Your task to perform on an android device: Add usb-b to the cart on ebay.com, then select checkout. Image 0: 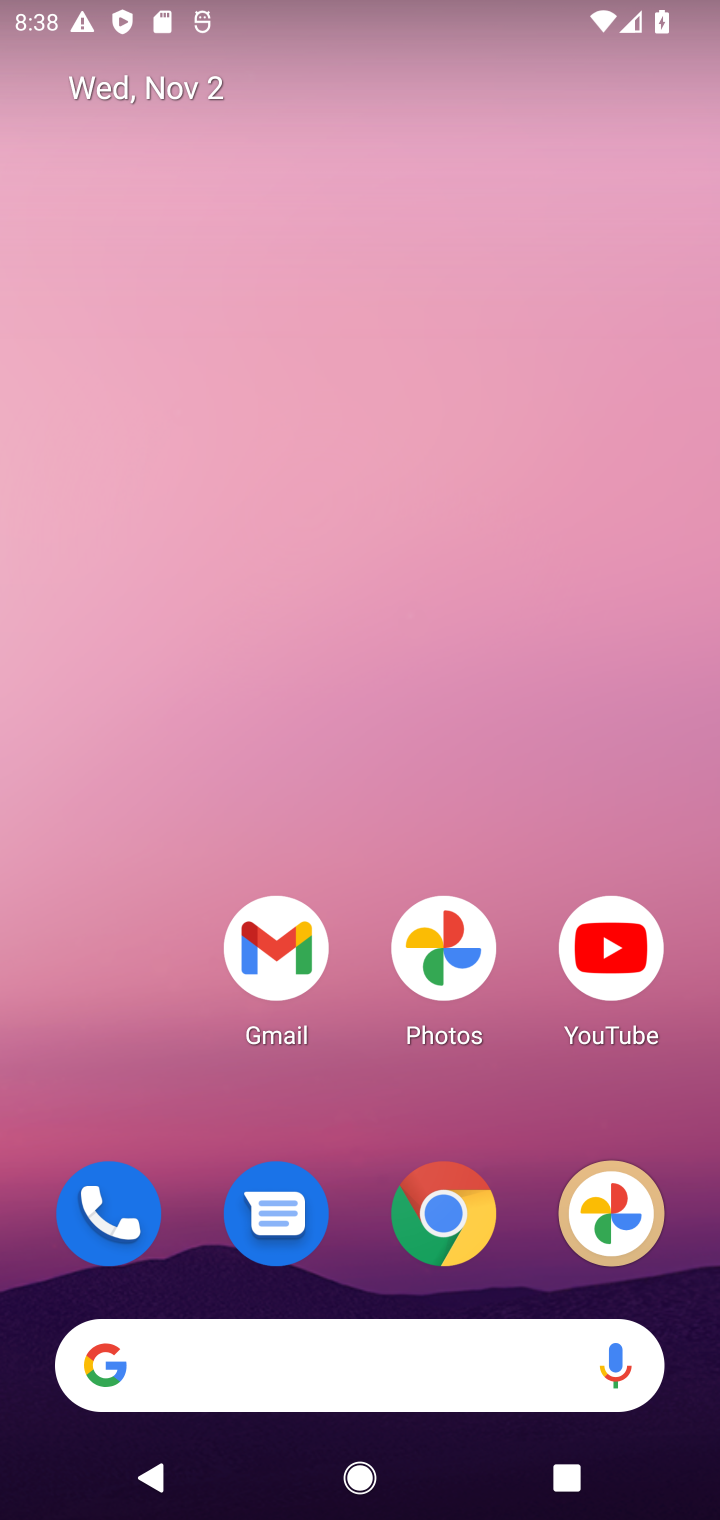
Step 0: click (444, 1228)
Your task to perform on an android device: Add usb-b to the cart on ebay.com, then select checkout. Image 1: 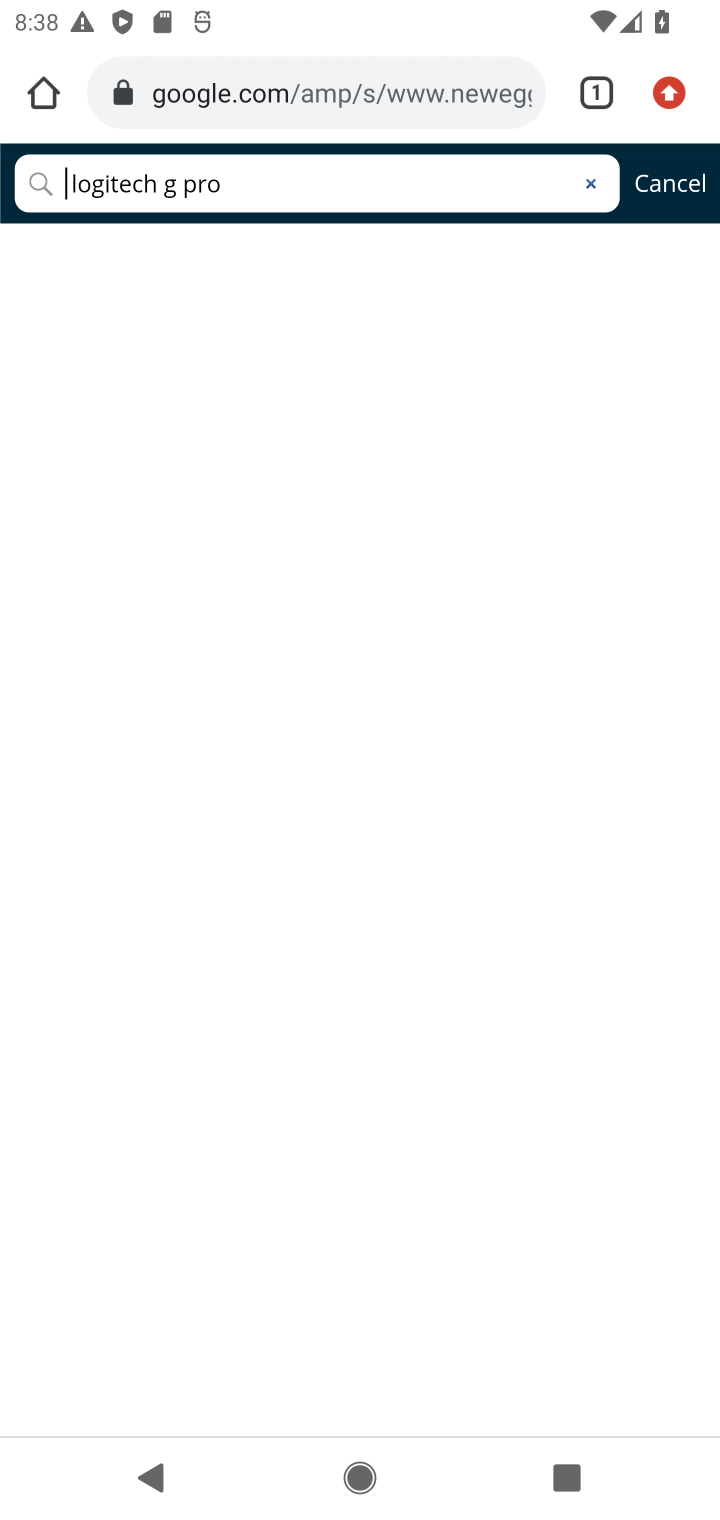
Step 1: click (361, 124)
Your task to perform on an android device: Add usb-b to the cart on ebay.com, then select checkout. Image 2: 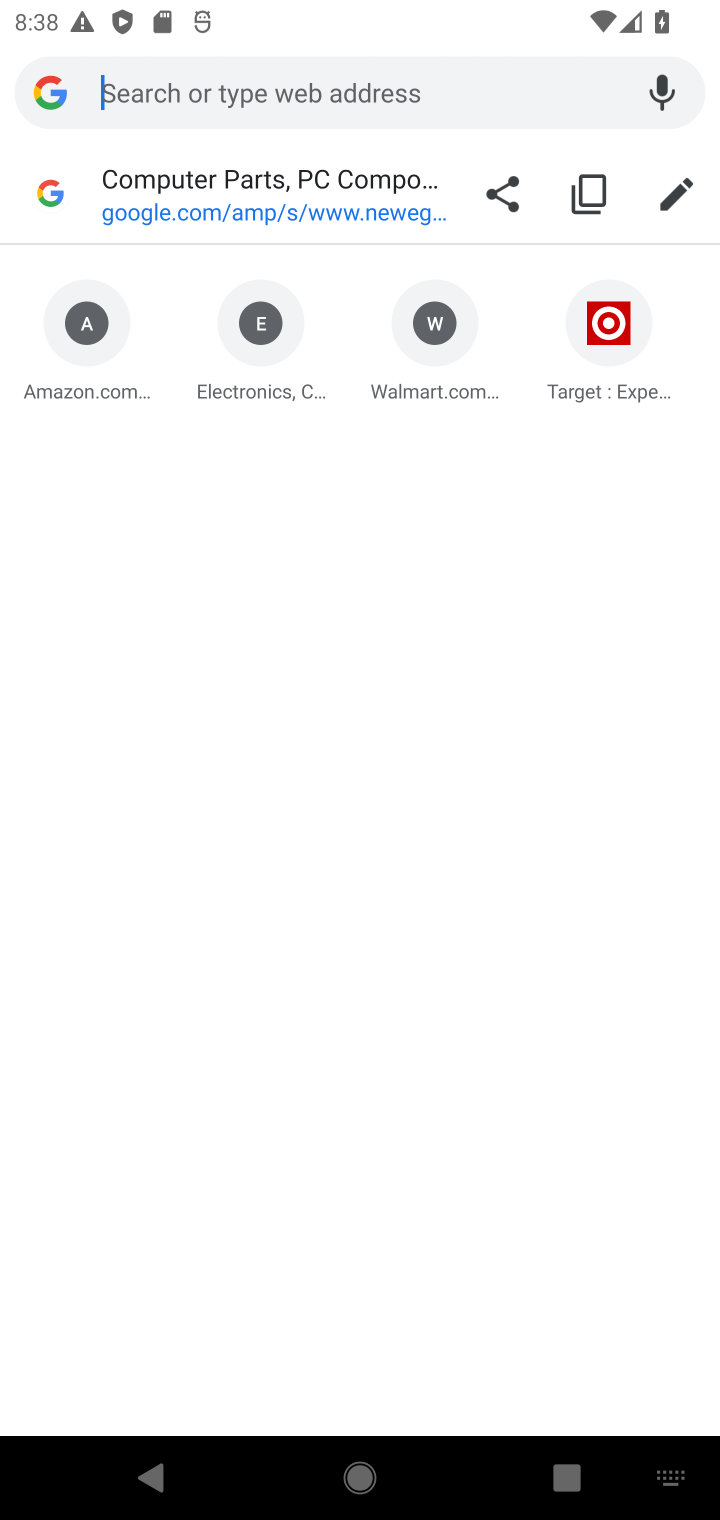
Step 2: type "ebay.com"
Your task to perform on an android device: Add usb-b to the cart on ebay.com, then select checkout. Image 3: 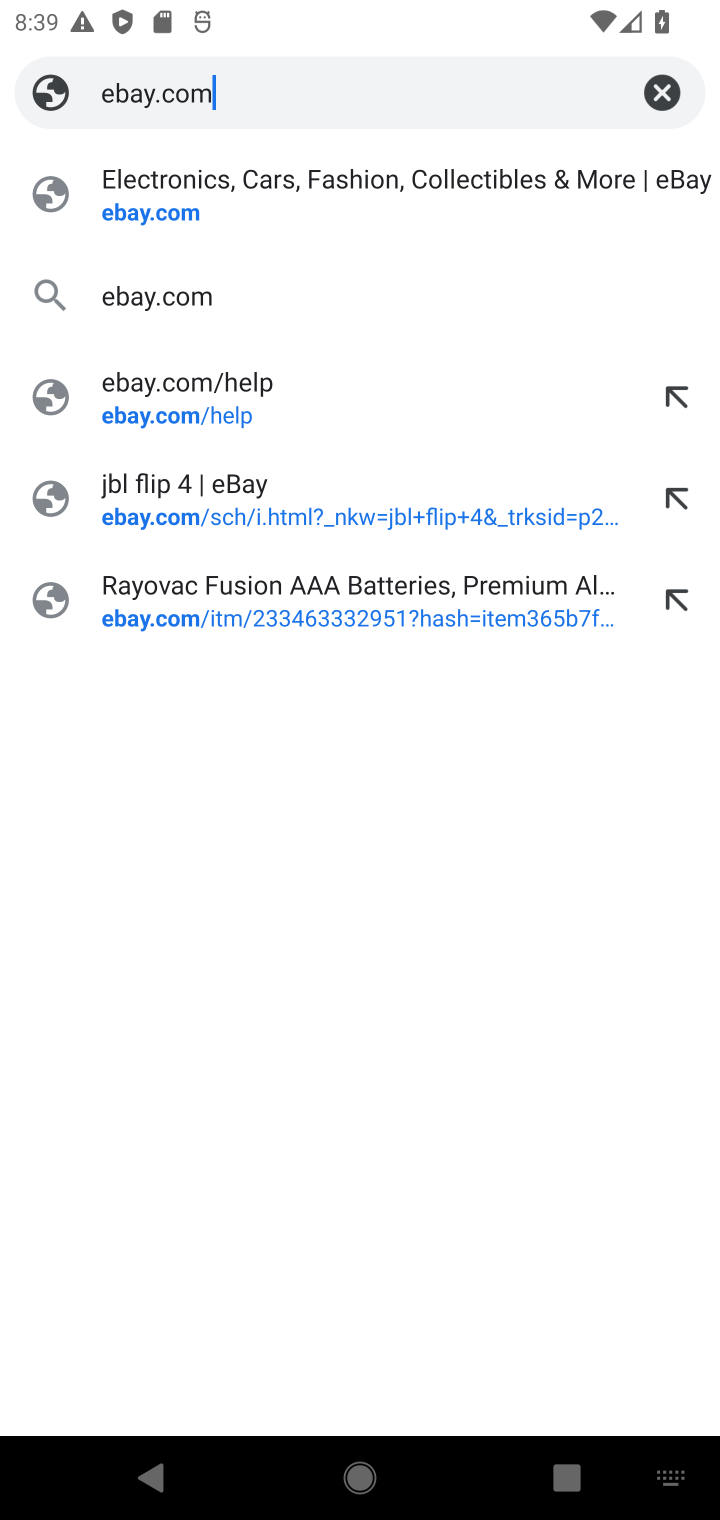
Step 3: click (167, 212)
Your task to perform on an android device: Add usb-b to the cart on ebay.com, then select checkout. Image 4: 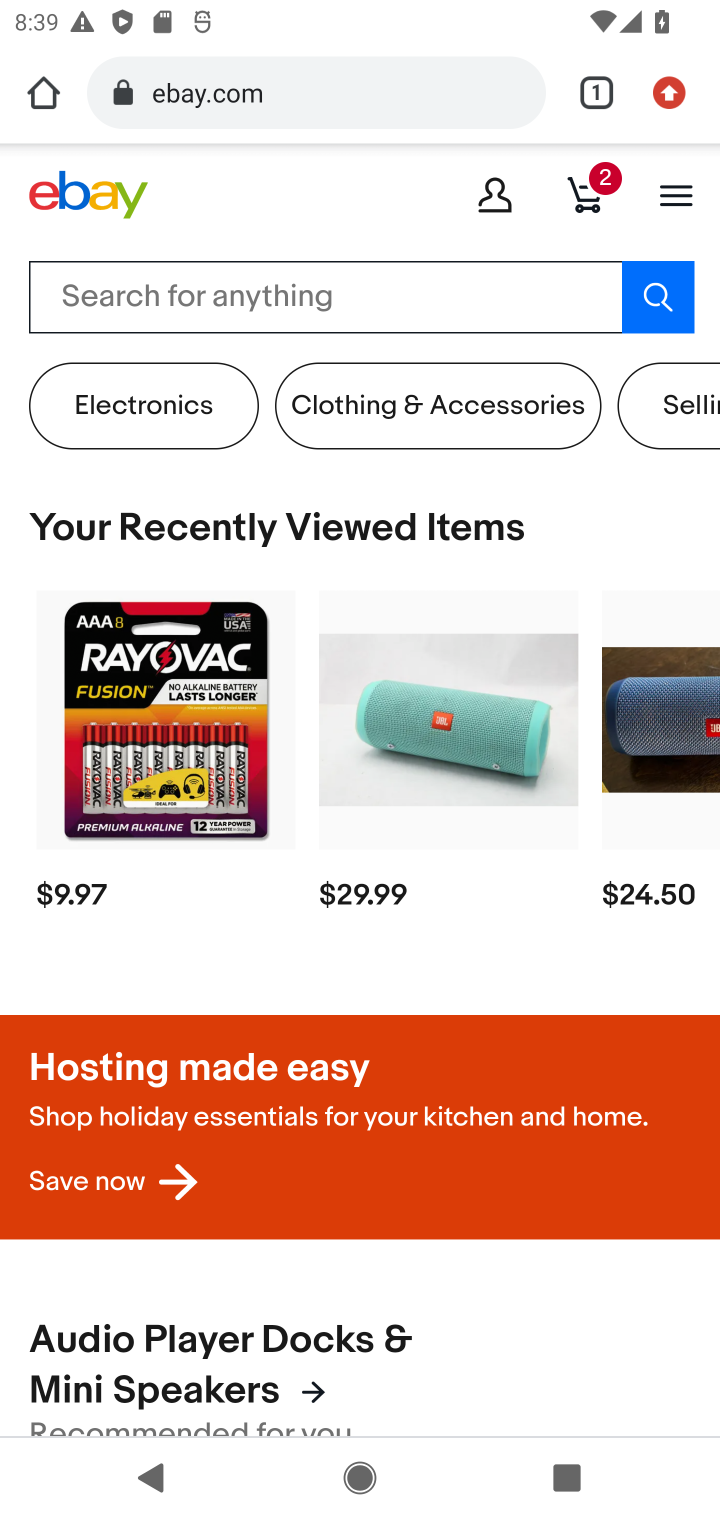
Step 4: click (254, 301)
Your task to perform on an android device: Add usb-b to the cart on ebay.com, then select checkout. Image 5: 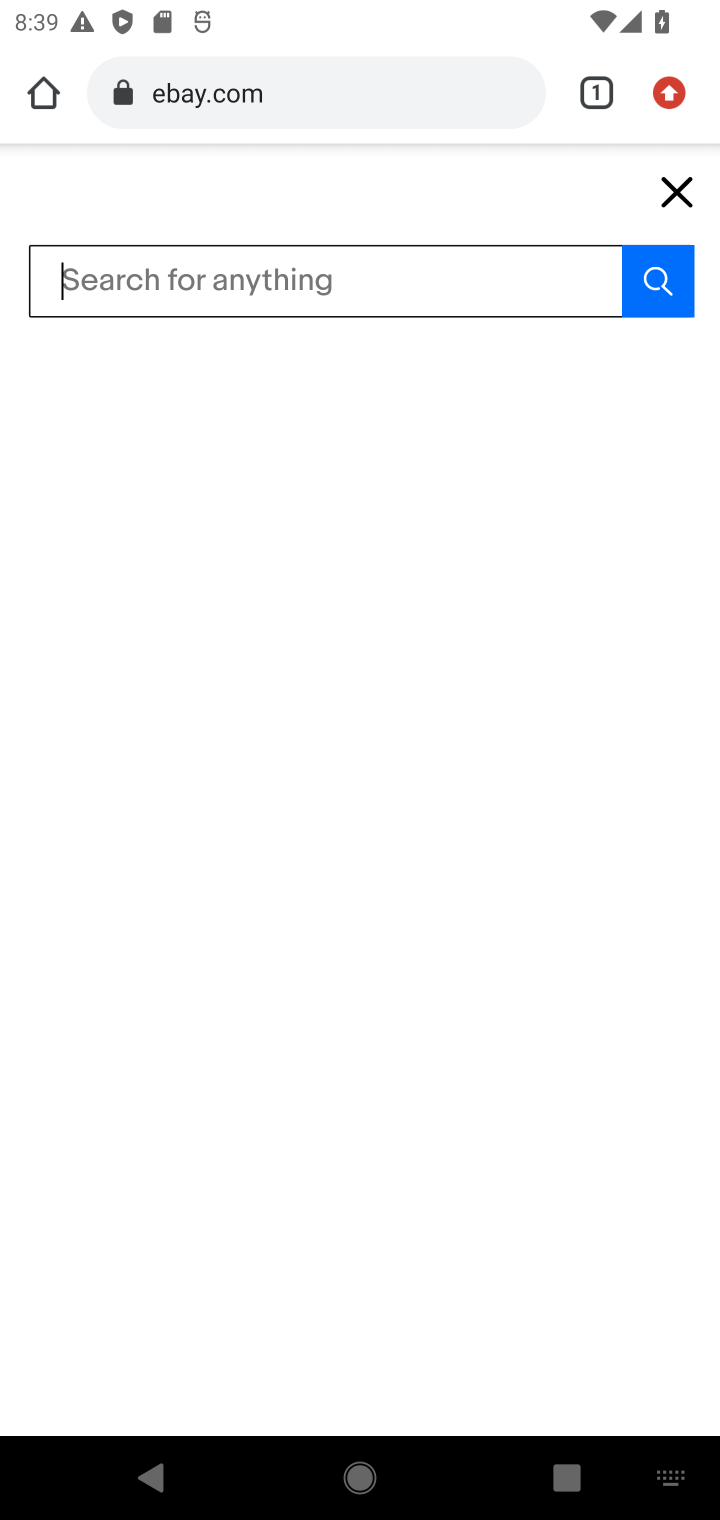
Step 5: type "usb-b"
Your task to perform on an android device: Add usb-b to the cart on ebay.com, then select checkout. Image 6: 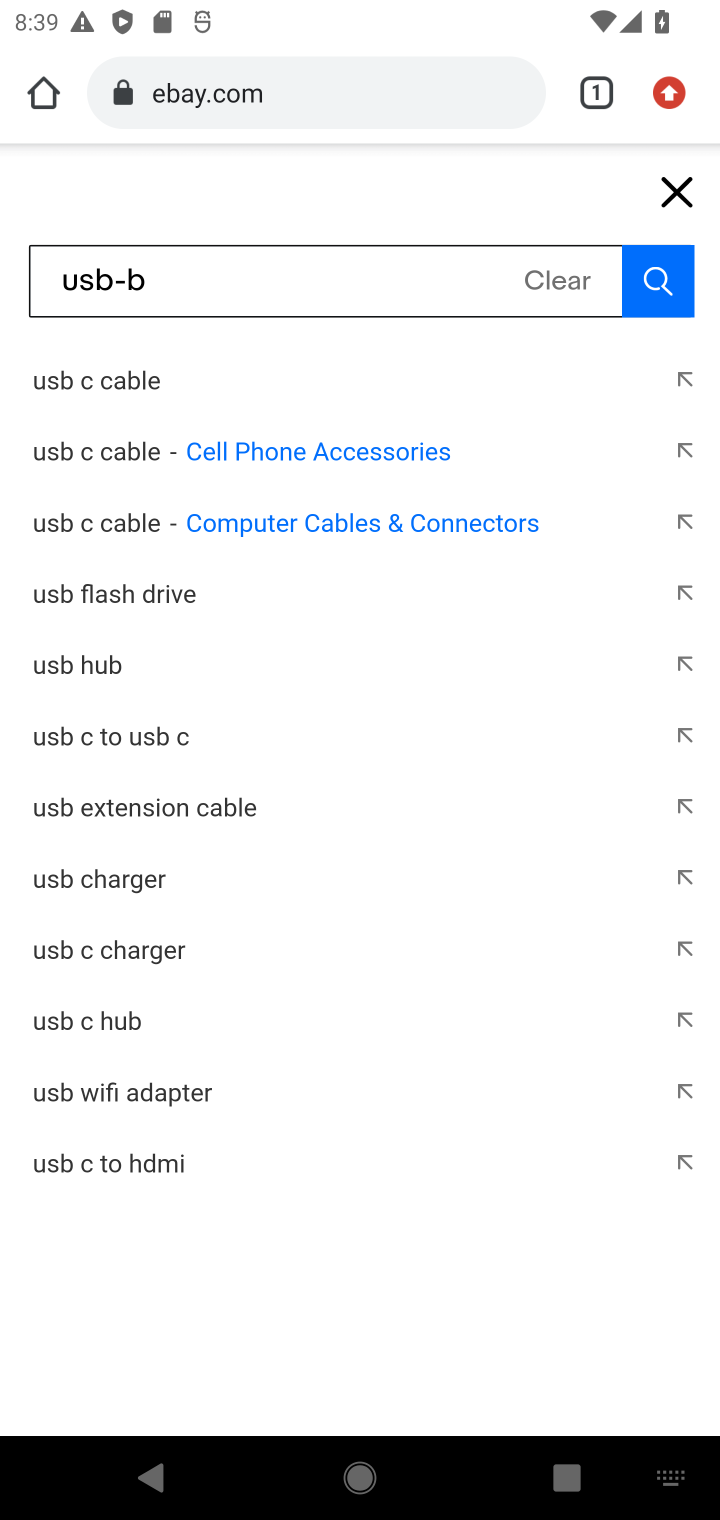
Step 6: click (104, 385)
Your task to perform on an android device: Add usb-b to the cart on ebay.com, then select checkout. Image 7: 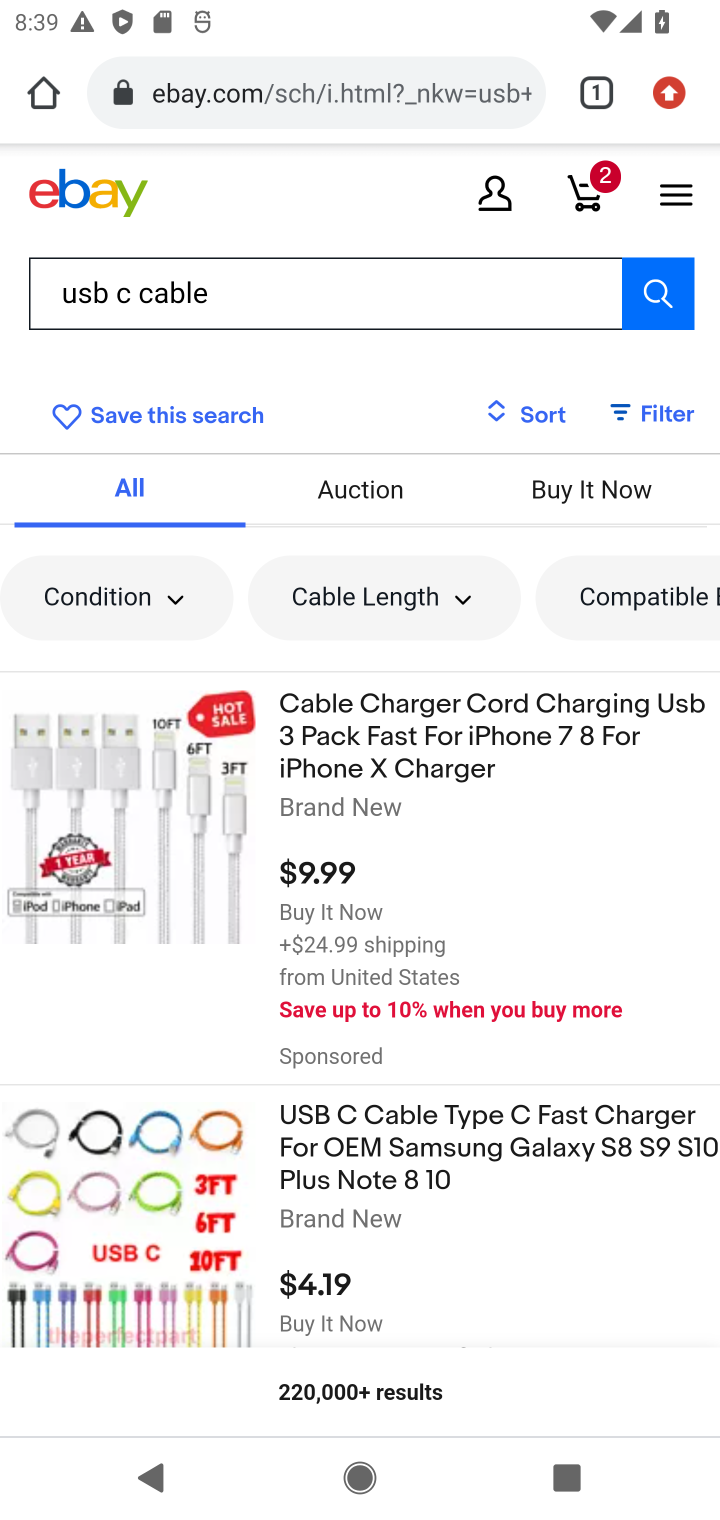
Step 7: click (248, 293)
Your task to perform on an android device: Add usb-b to the cart on ebay.com, then select checkout. Image 8: 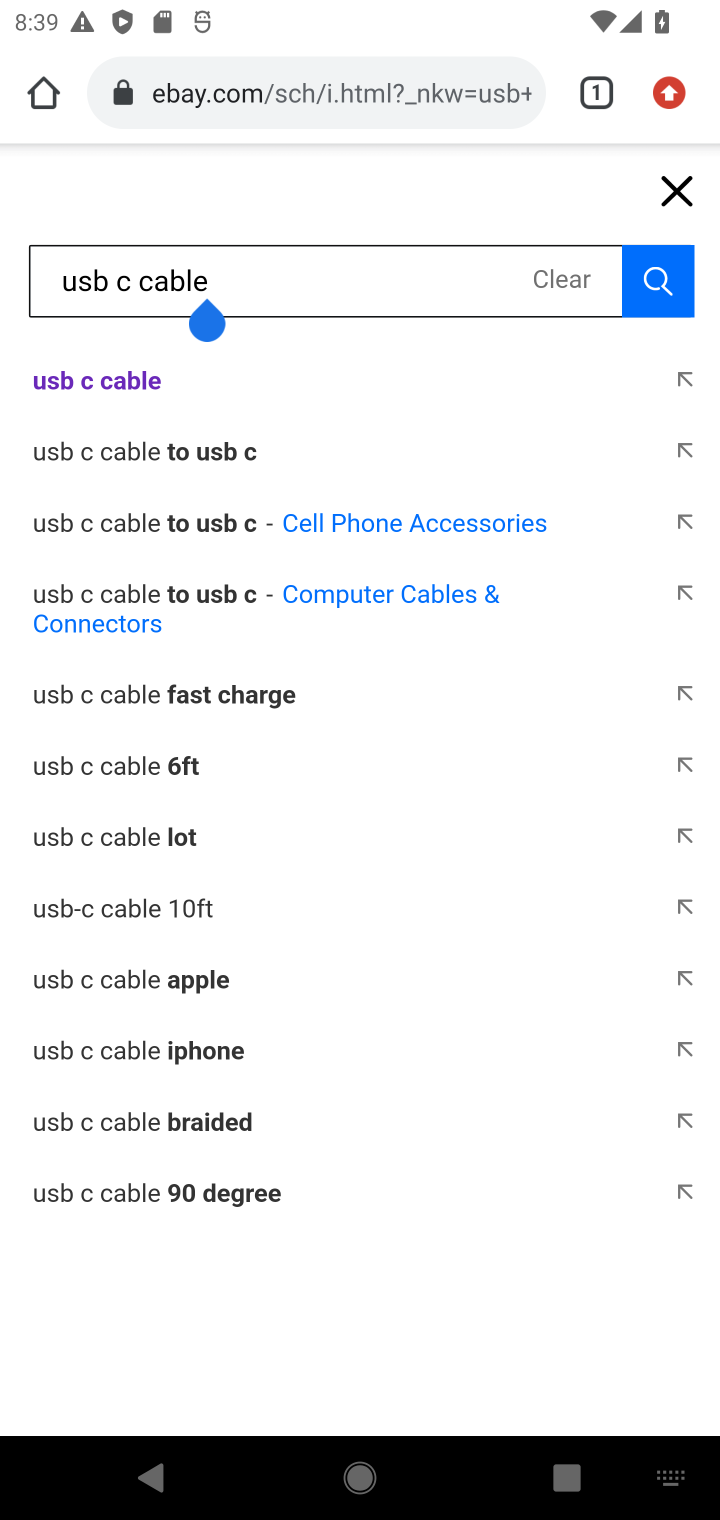
Step 8: click (578, 277)
Your task to perform on an android device: Add usb-b to the cart on ebay.com, then select checkout. Image 9: 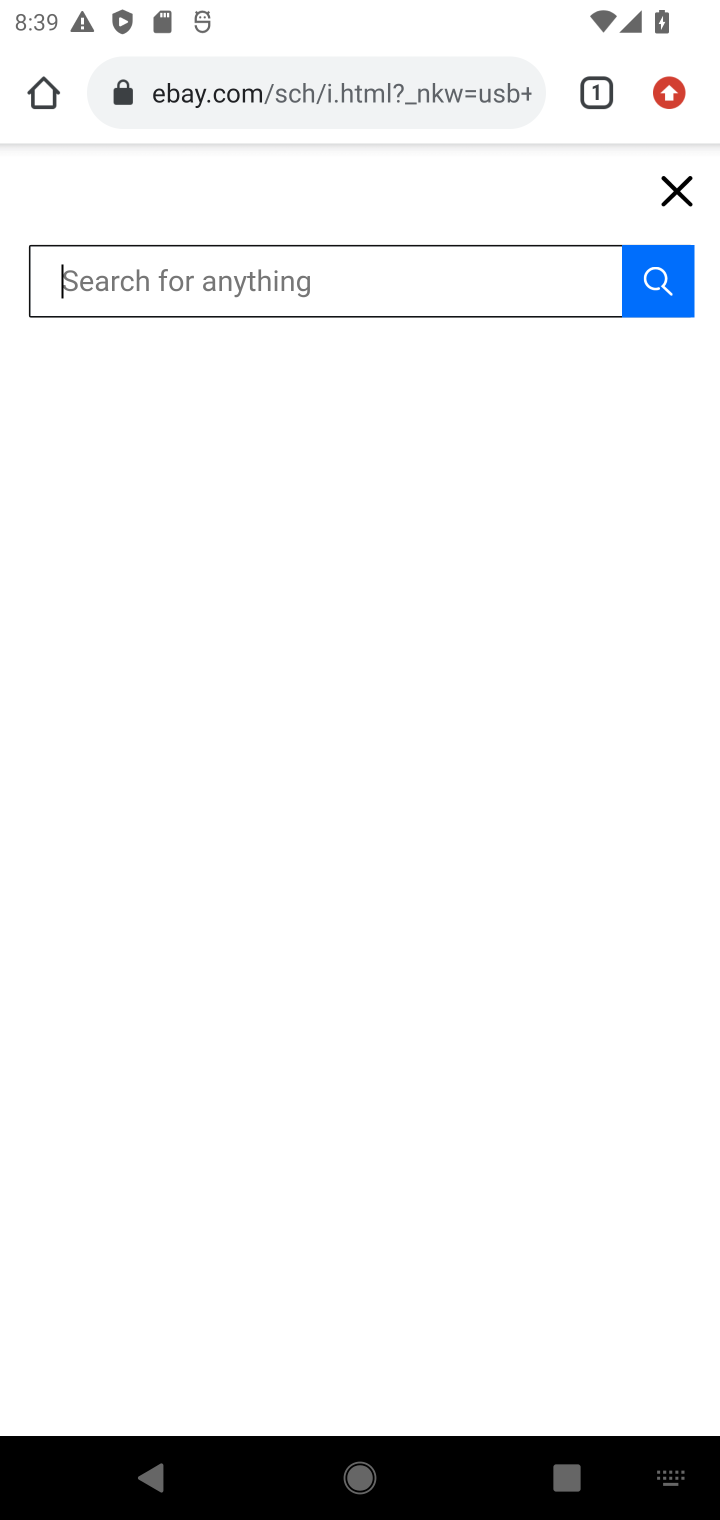
Step 9: type "usb-b"
Your task to perform on an android device: Add usb-b to the cart on ebay.com, then select checkout. Image 10: 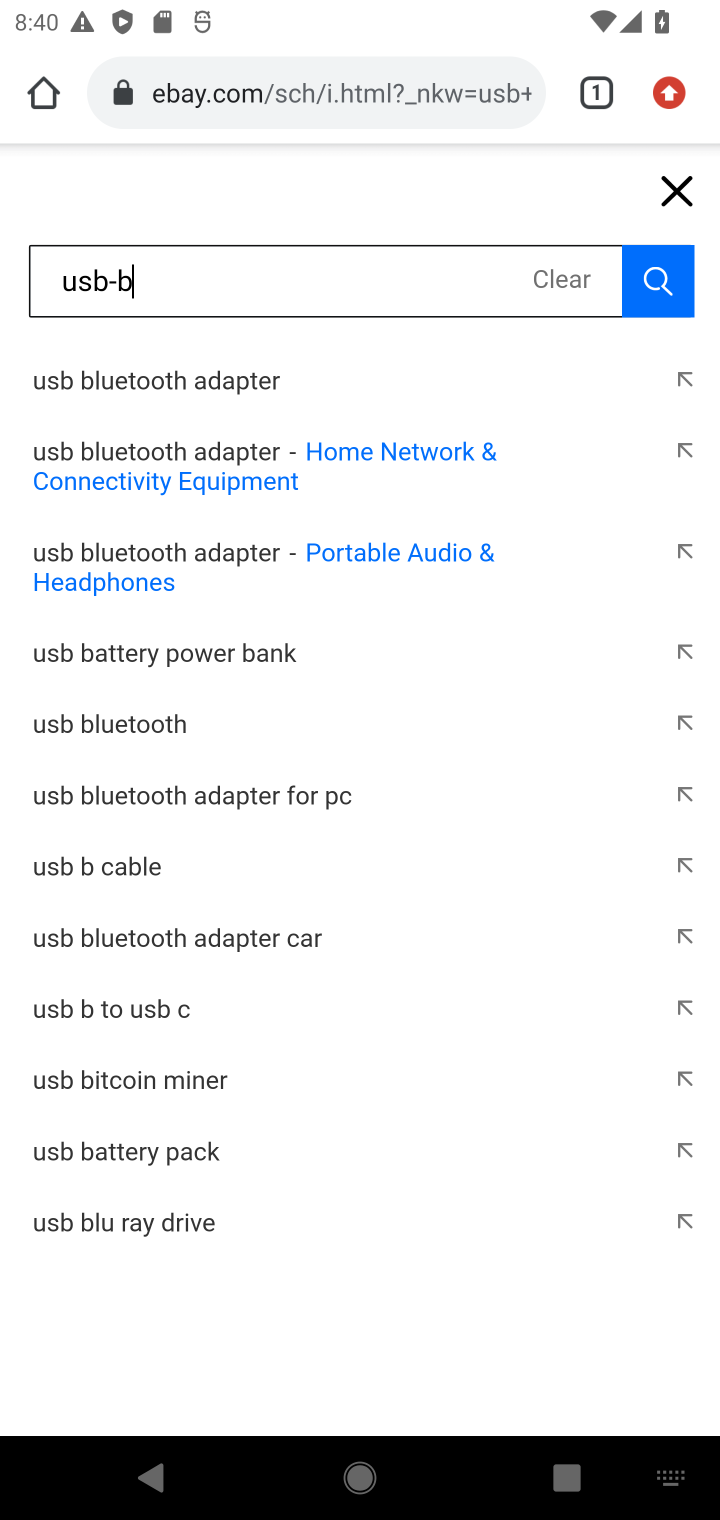
Step 10: click (643, 286)
Your task to perform on an android device: Add usb-b to the cart on ebay.com, then select checkout. Image 11: 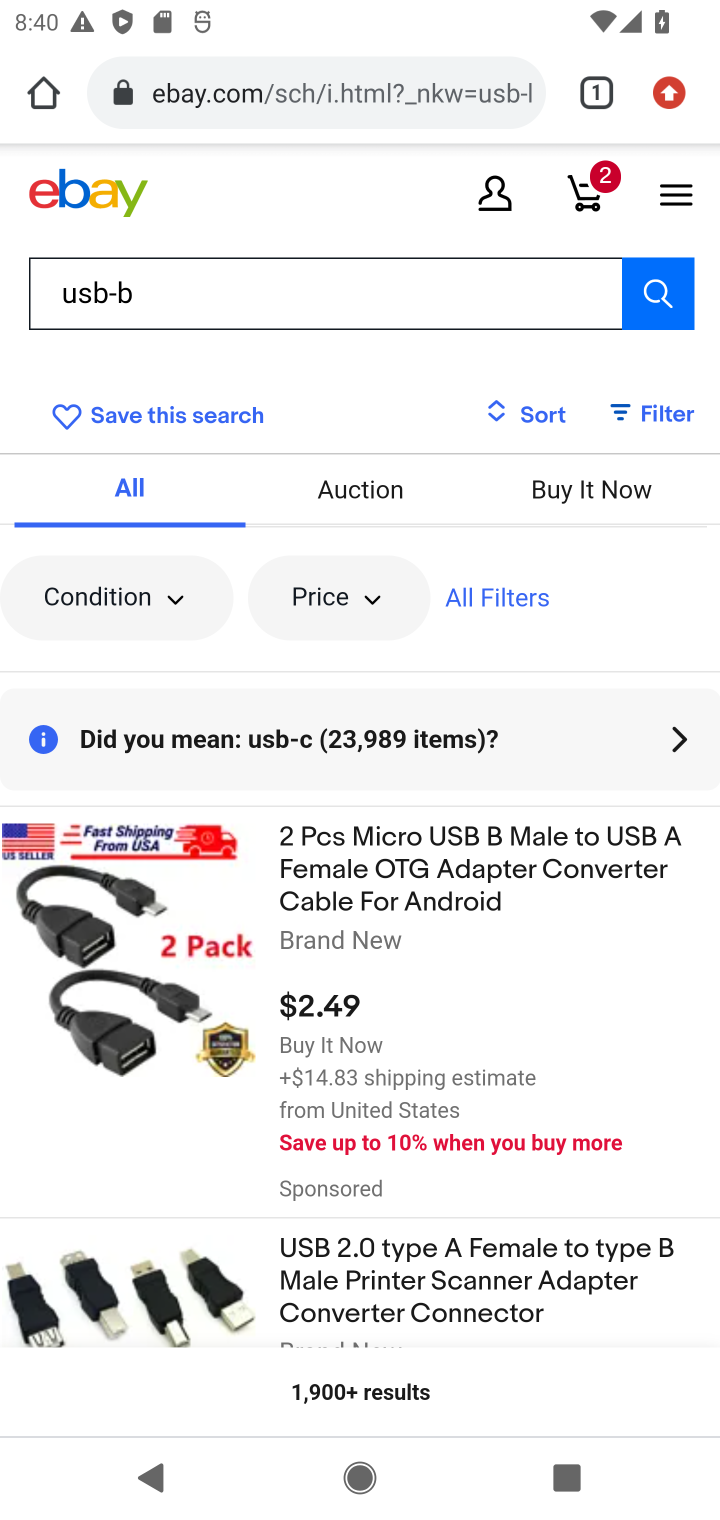
Step 11: click (203, 1023)
Your task to perform on an android device: Add usb-b to the cart on ebay.com, then select checkout. Image 12: 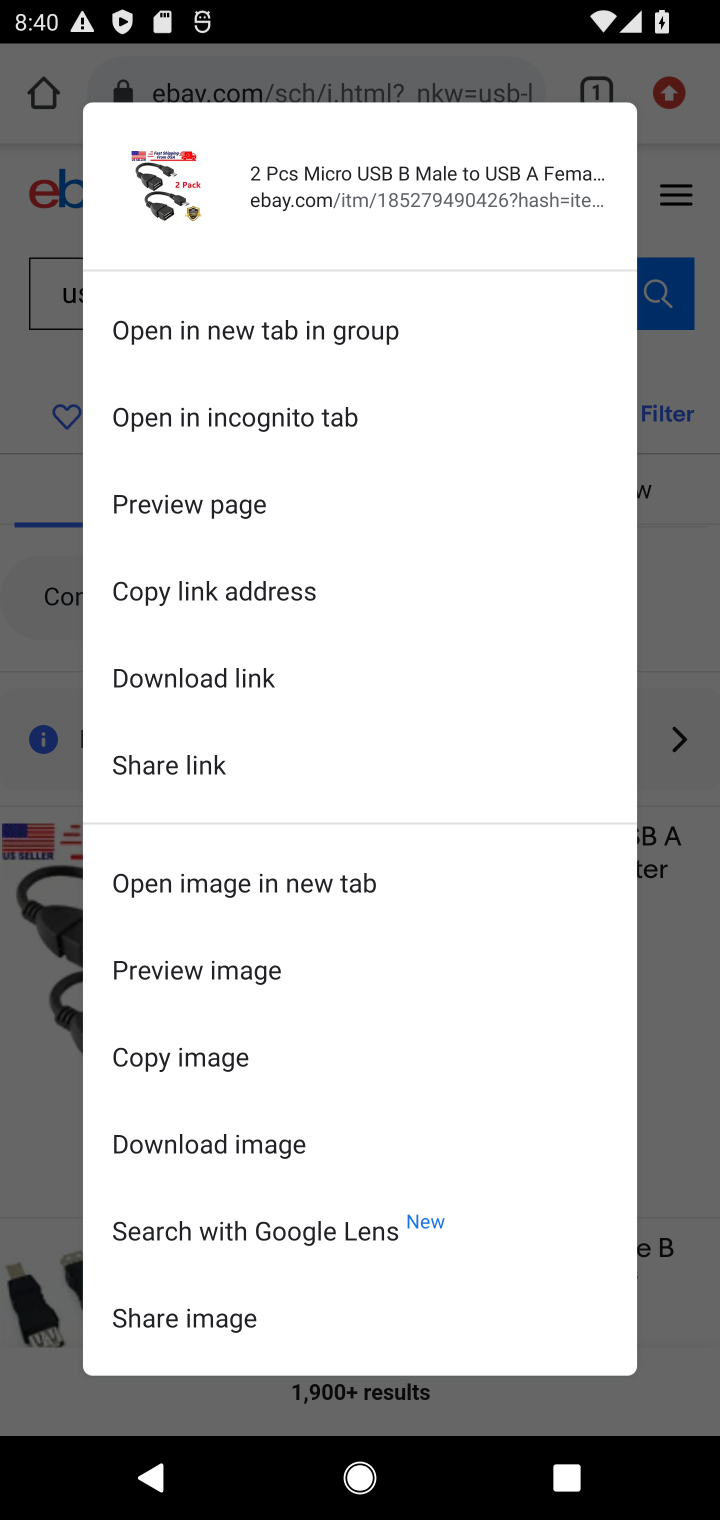
Step 12: click (49, 1011)
Your task to perform on an android device: Add usb-b to the cart on ebay.com, then select checkout. Image 13: 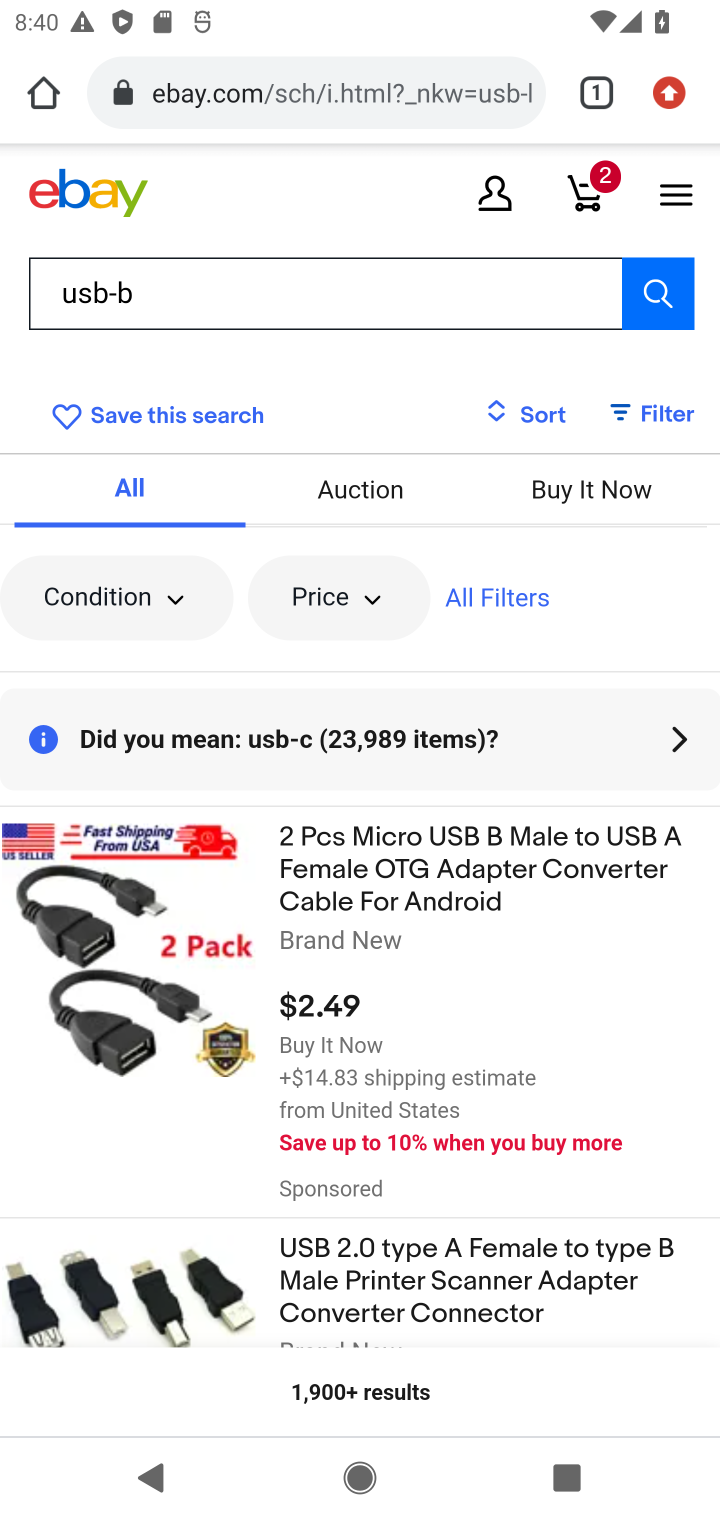
Step 13: click (252, 1015)
Your task to perform on an android device: Add usb-b to the cart on ebay.com, then select checkout. Image 14: 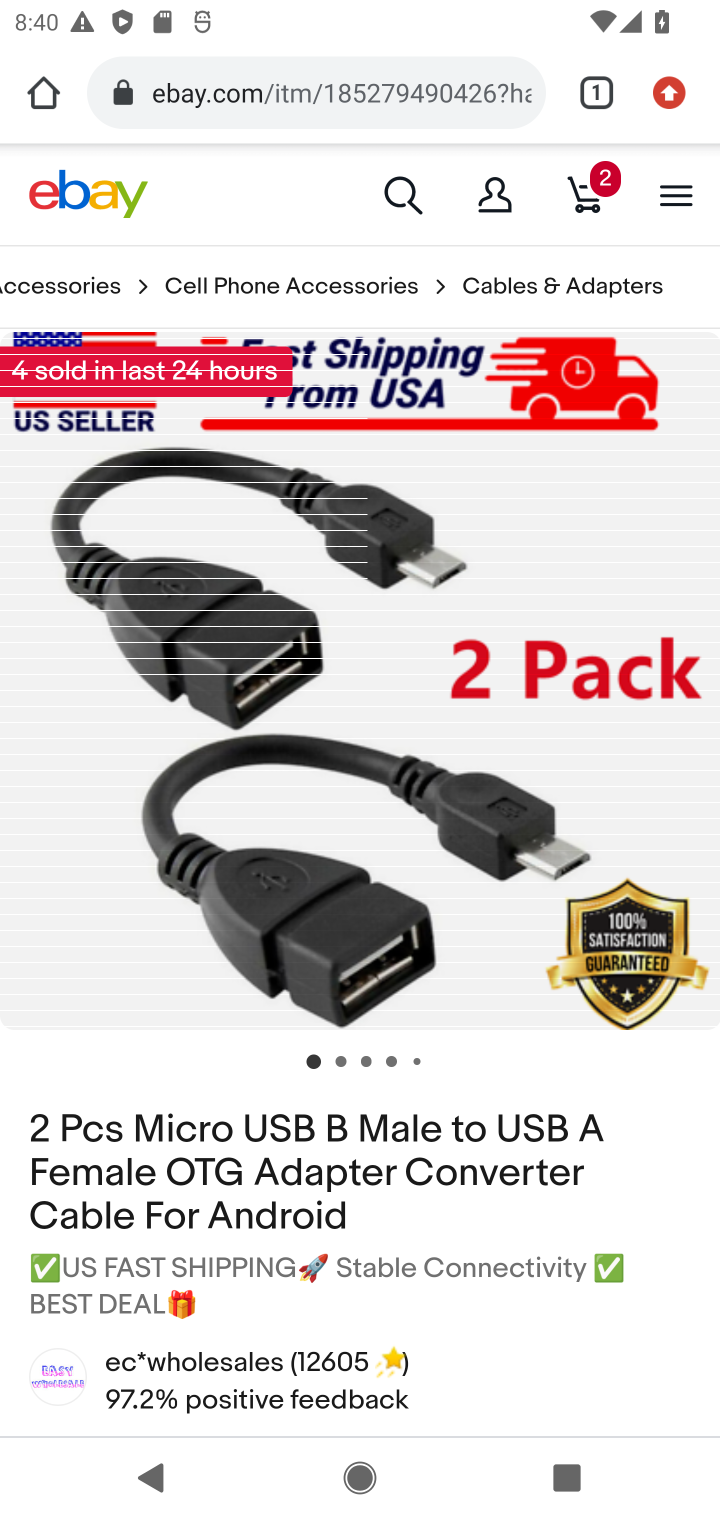
Step 14: drag from (361, 1138) to (446, 393)
Your task to perform on an android device: Add usb-b to the cart on ebay.com, then select checkout. Image 15: 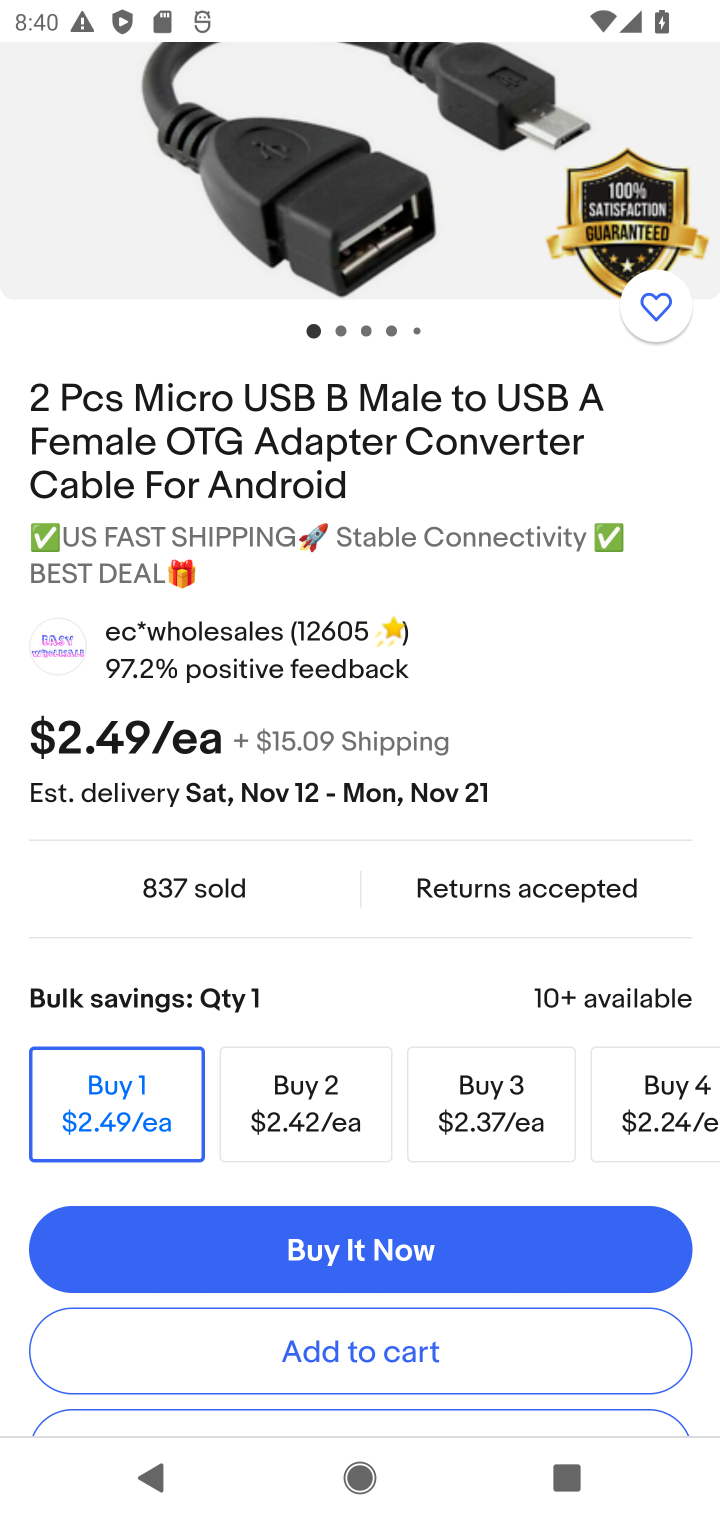
Step 15: click (360, 1347)
Your task to perform on an android device: Add usb-b to the cart on ebay.com, then select checkout. Image 16: 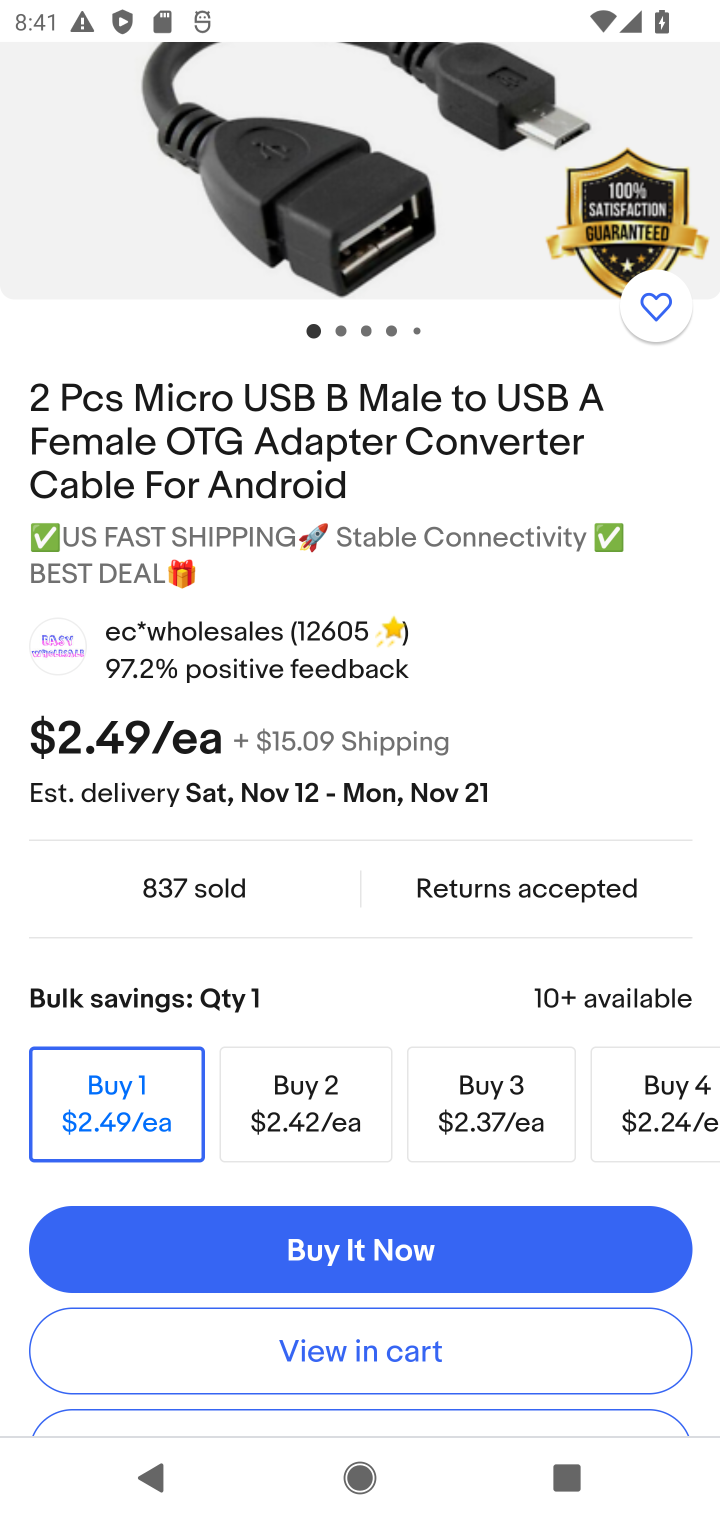
Step 16: click (358, 1363)
Your task to perform on an android device: Add usb-b to the cart on ebay.com, then select checkout. Image 17: 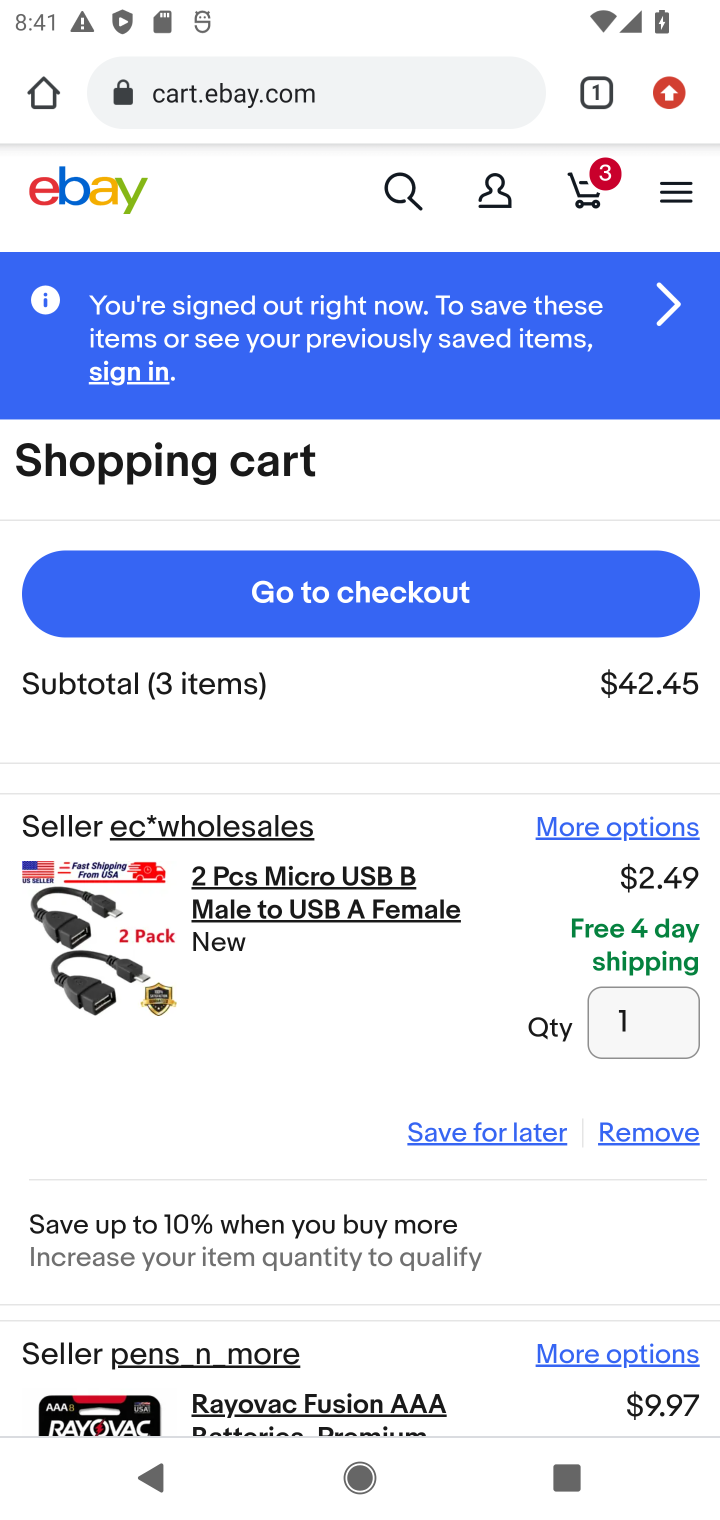
Step 17: click (429, 602)
Your task to perform on an android device: Add usb-b to the cart on ebay.com, then select checkout. Image 18: 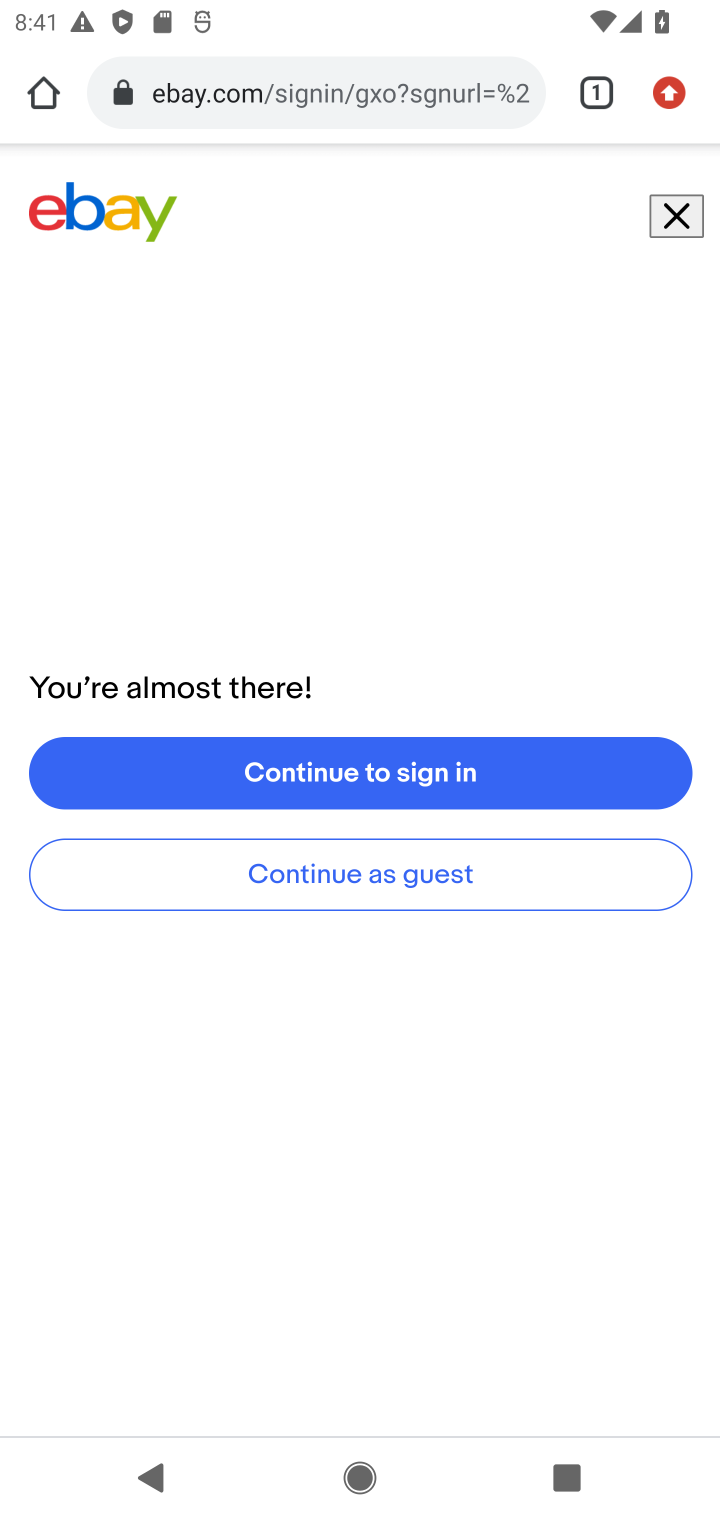
Step 18: task complete